Your task to perform on an android device: empty trash in google photos Image 0: 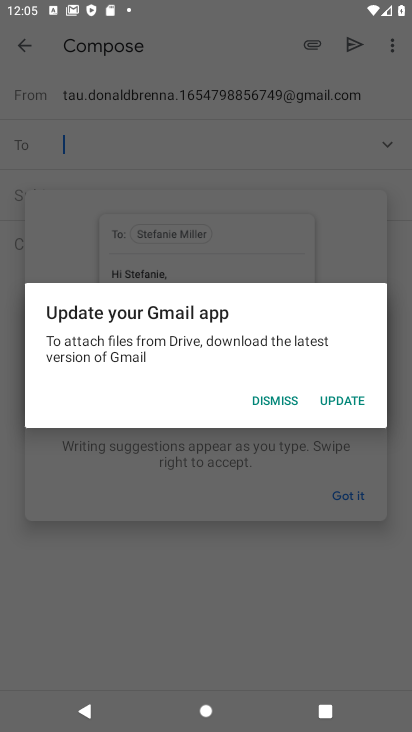
Step 0: press home button
Your task to perform on an android device: empty trash in google photos Image 1: 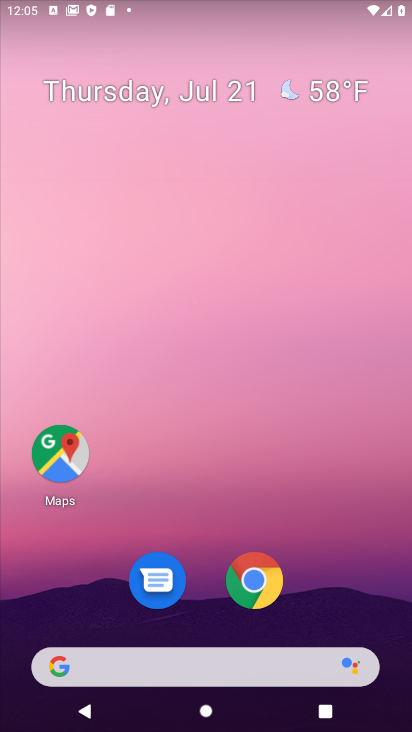
Step 1: drag from (306, 600) to (331, 21)
Your task to perform on an android device: empty trash in google photos Image 2: 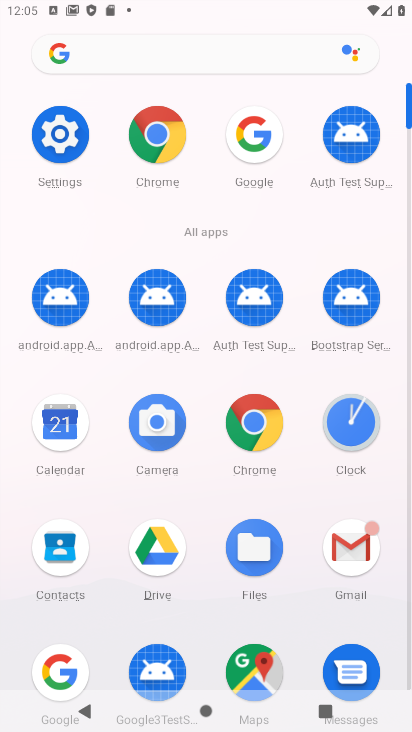
Step 2: drag from (375, 618) to (411, 132)
Your task to perform on an android device: empty trash in google photos Image 3: 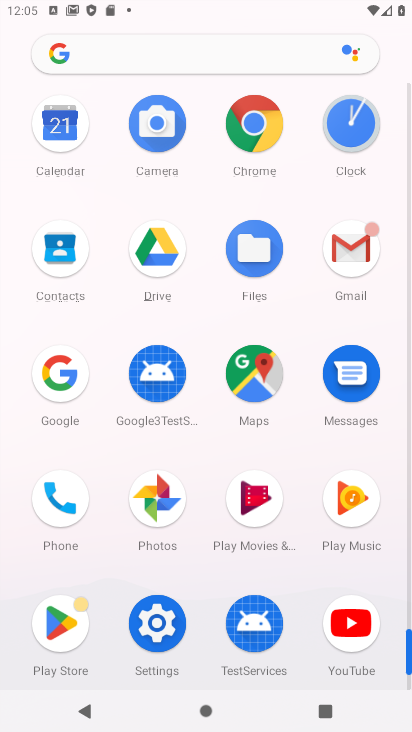
Step 3: click (162, 508)
Your task to perform on an android device: empty trash in google photos Image 4: 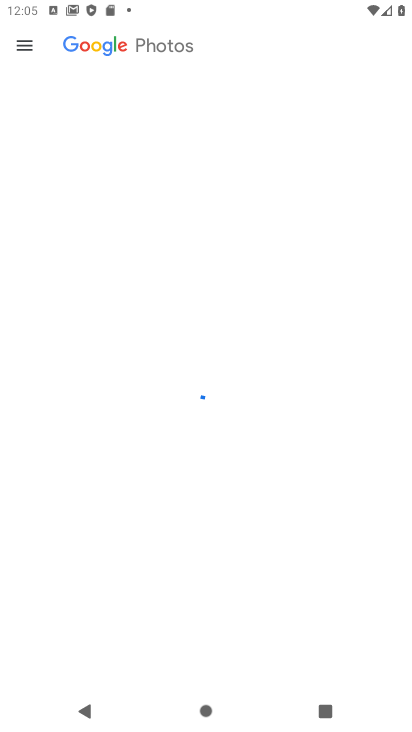
Step 4: click (27, 45)
Your task to perform on an android device: empty trash in google photos Image 5: 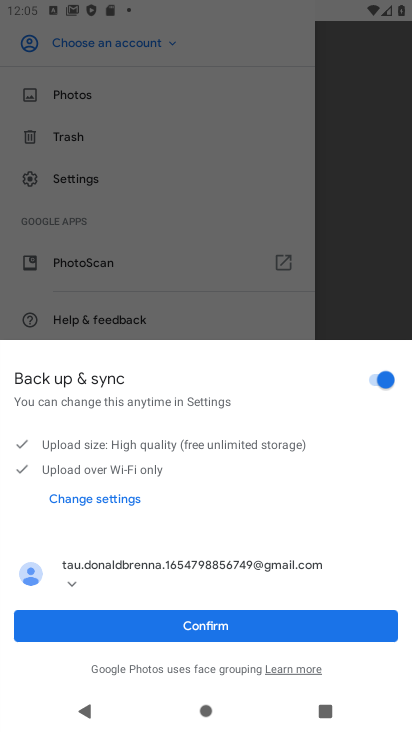
Step 5: click (191, 627)
Your task to perform on an android device: empty trash in google photos Image 6: 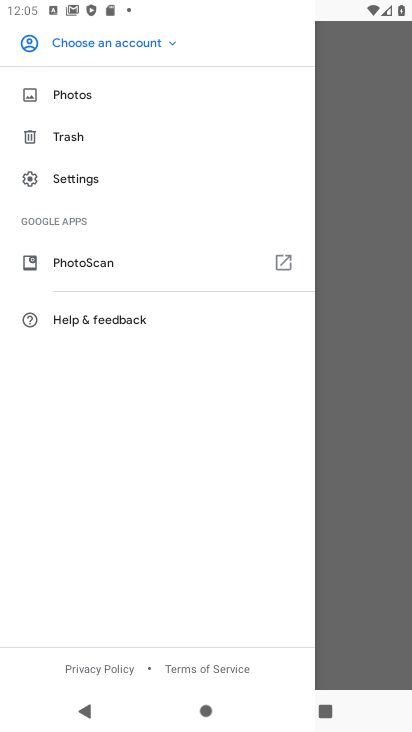
Step 6: click (56, 134)
Your task to perform on an android device: empty trash in google photos Image 7: 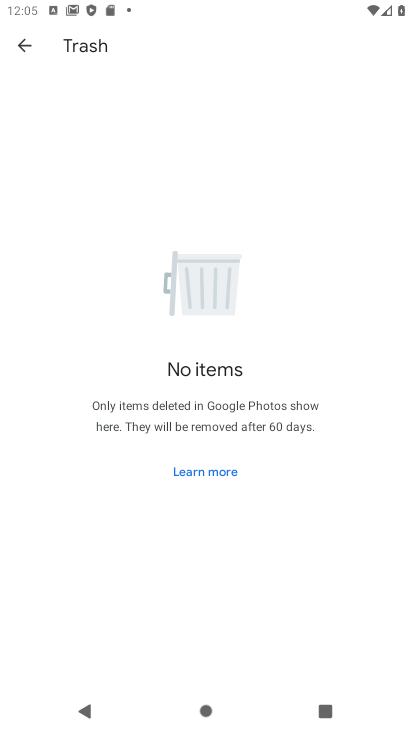
Step 7: task complete